Your task to perform on an android device: Clear all items from cart on costco.com. Image 0: 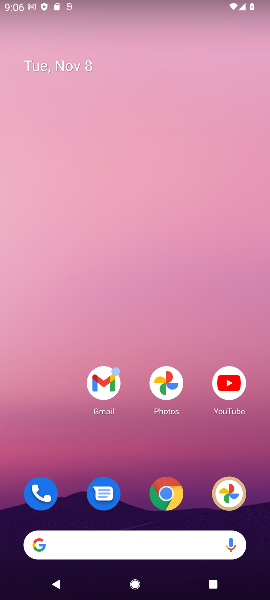
Step 0: click (165, 498)
Your task to perform on an android device: Clear all items from cart on costco.com. Image 1: 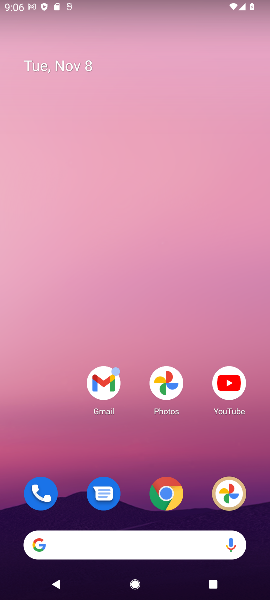
Step 1: click (167, 502)
Your task to perform on an android device: Clear all items from cart on costco.com. Image 2: 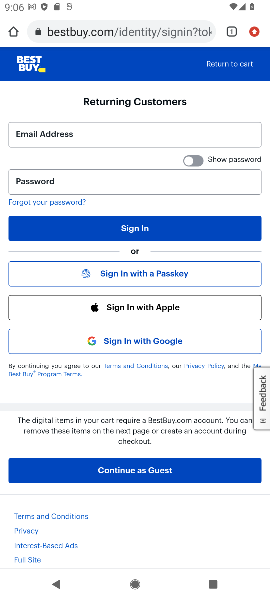
Step 2: click (99, 37)
Your task to perform on an android device: Clear all items from cart on costco.com. Image 3: 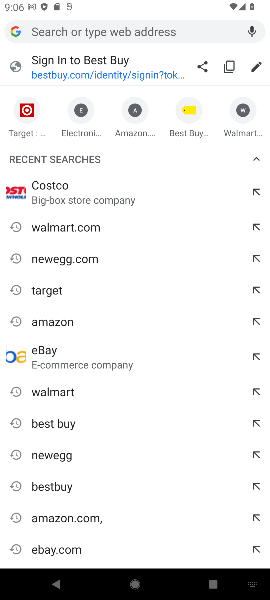
Step 3: click (45, 196)
Your task to perform on an android device: Clear all items from cart on costco.com. Image 4: 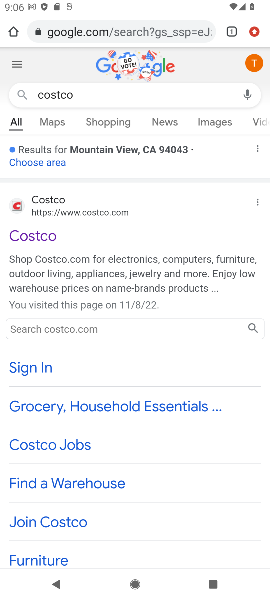
Step 4: click (40, 242)
Your task to perform on an android device: Clear all items from cart on costco.com. Image 5: 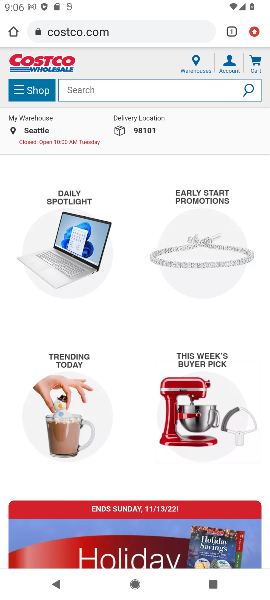
Step 5: click (257, 61)
Your task to perform on an android device: Clear all items from cart on costco.com. Image 6: 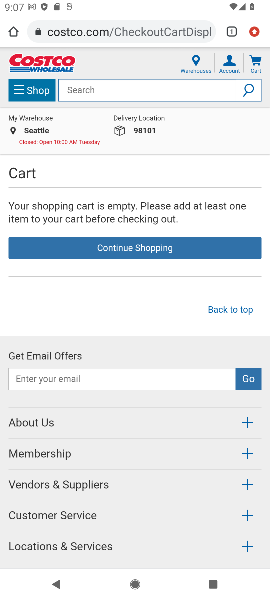
Step 6: task complete